Your task to perform on an android device: check google app version Image 0: 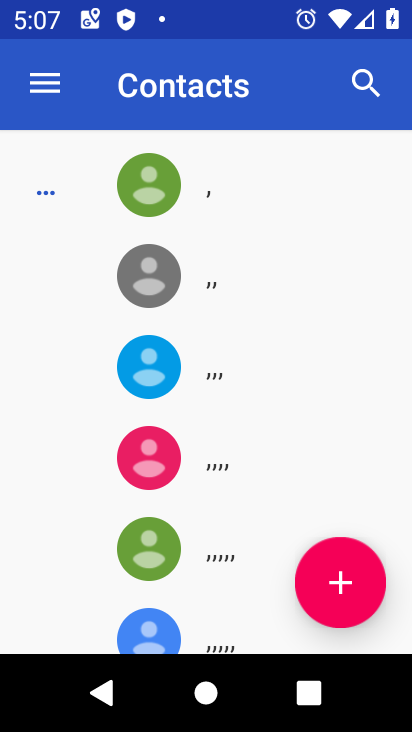
Step 0: press home button
Your task to perform on an android device: check google app version Image 1: 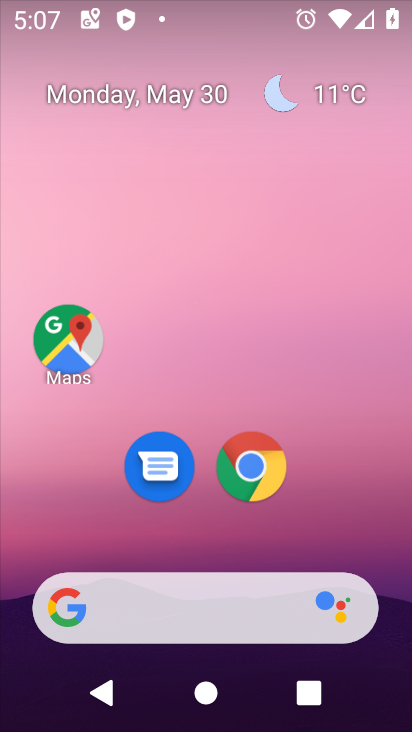
Step 1: drag from (338, 461) to (310, 102)
Your task to perform on an android device: check google app version Image 2: 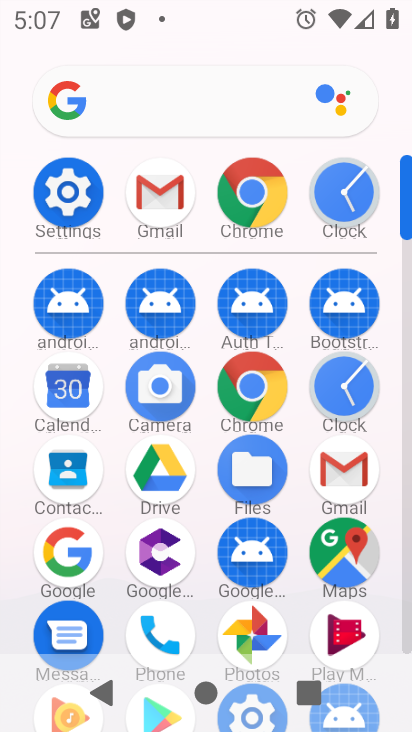
Step 2: drag from (200, 545) to (202, 298)
Your task to perform on an android device: check google app version Image 3: 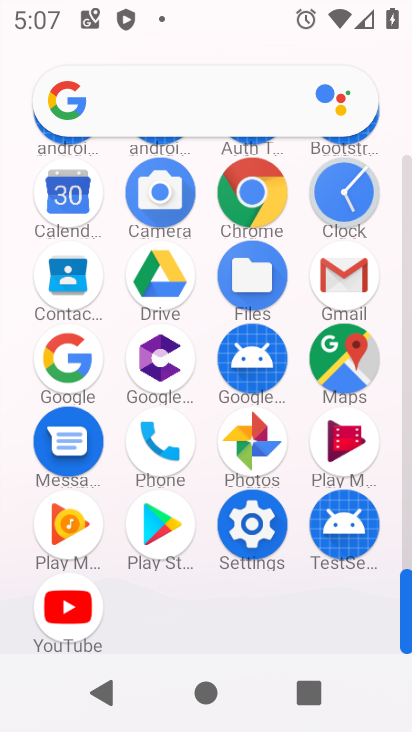
Step 3: click (73, 379)
Your task to perform on an android device: check google app version Image 4: 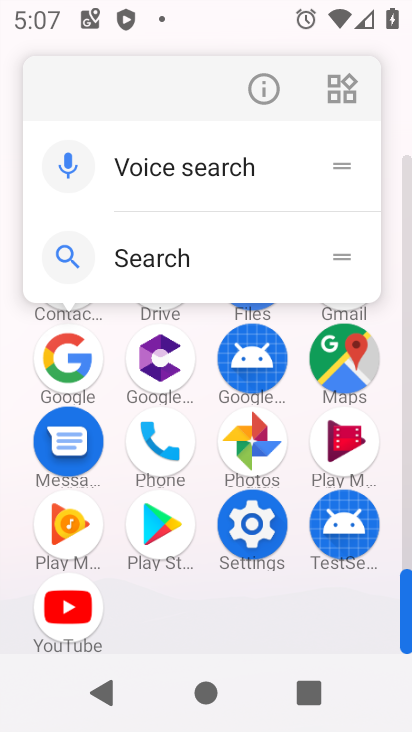
Step 4: click (256, 85)
Your task to perform on an android device: check google app version Image 5: 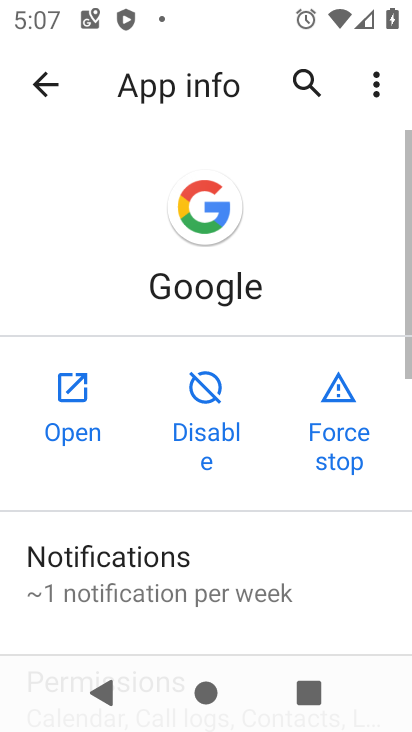
Step 5: drag from (264, 519) to (245, 70)
Your task to perform on an android device: check google app version Image 6: 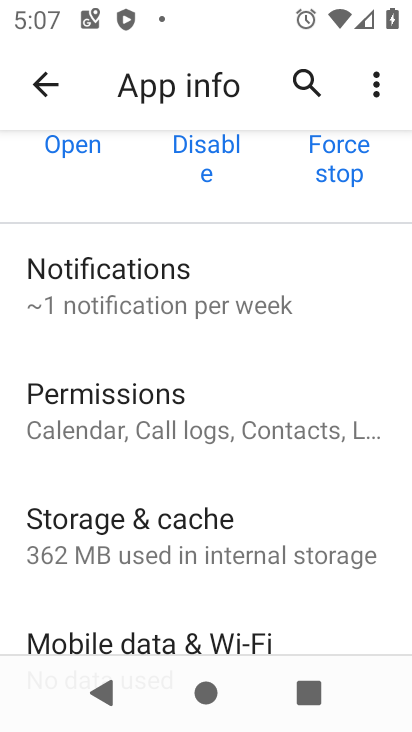
Step 6: drag from (294, 606) to (241, 54)
Your task to perform on an android device: check google app version Image 7: 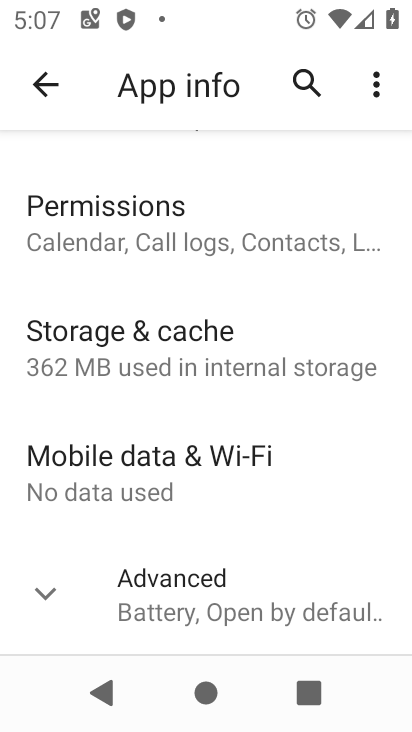
Step 7: drag from (239, 529) to (258, 39)
Your task to perform on an android device: check google app version Image 8: 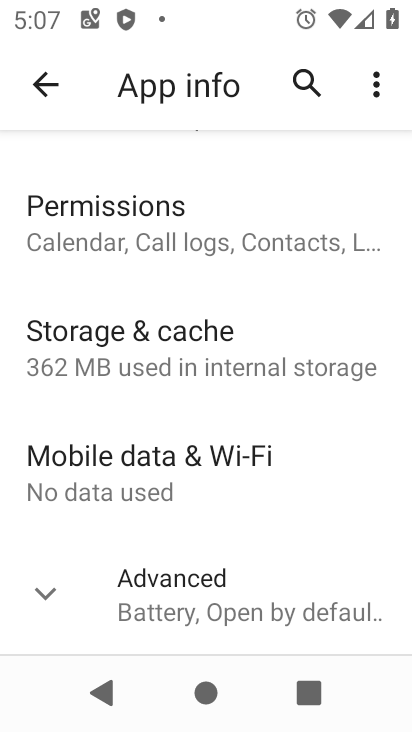
Step 8: click (190, 609)
Your task to perform on an android device: check google app version Image 9: 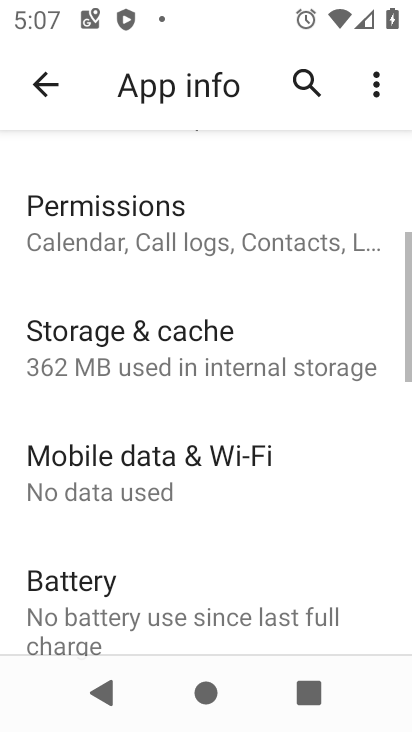
Step 9: drag from (234, 571) to (182, 140)
Your task to perform on an android device: check google app version Image 10: 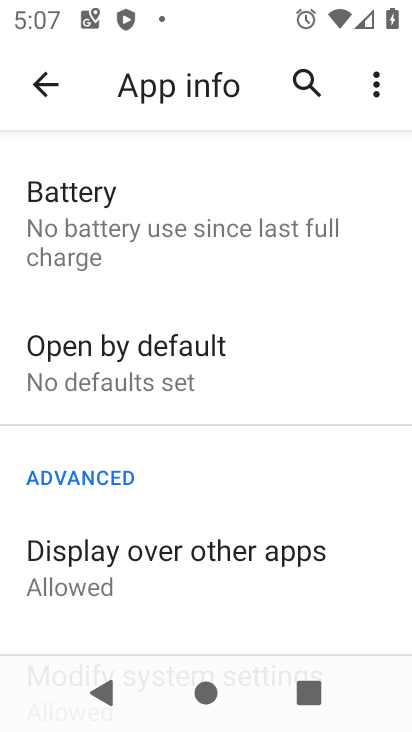
Step 10: drag from (170, 604) to (214, 202)
Your task to perform on an android device: check google app version Image 11: 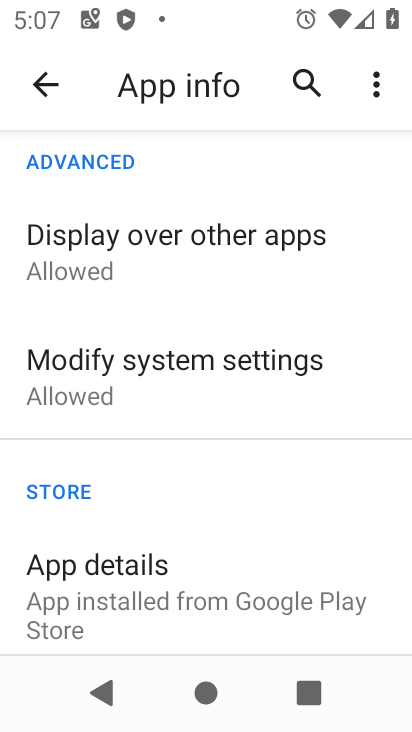
Step 11: drag from (197, 542) to (198, 262)
Your task to perform on an android device: check google app version Image 12: 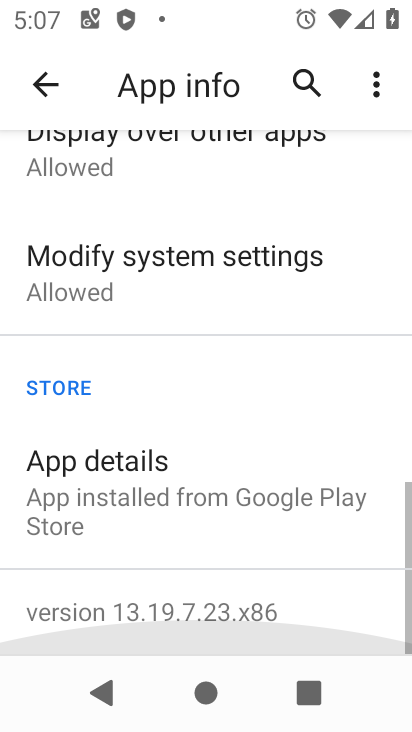
Step 12: click (187, 190)
Your task to perform on an android device: check google app version Image 13: 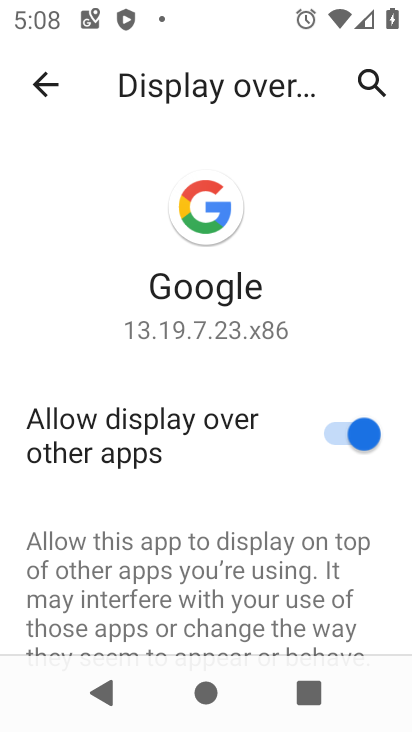
Step 13: click (46, 82)
Your task to perform on an android device: check google app version Image 14: 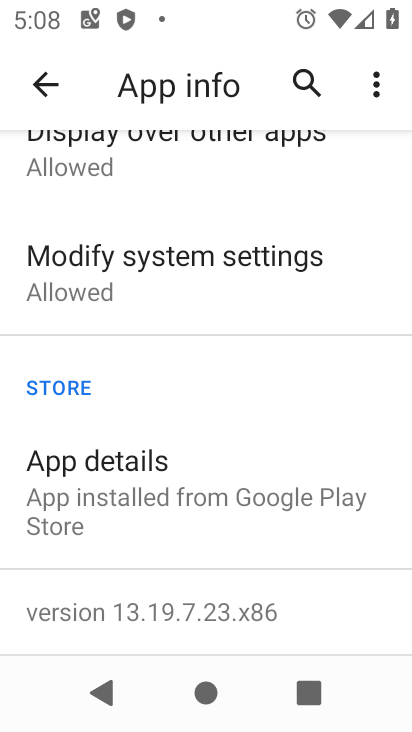
Step 14: task complete